Your task to perform on an android device: Look up the best rated wireless earbuds on Ali Express Image 0: 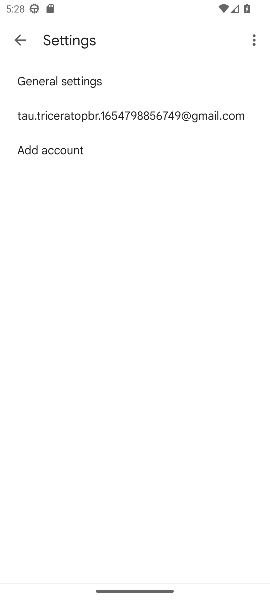
Step 0: press home button
Your task to perform on an android device: Look up the best rated wireless earbuds on Ali Express Image 1: 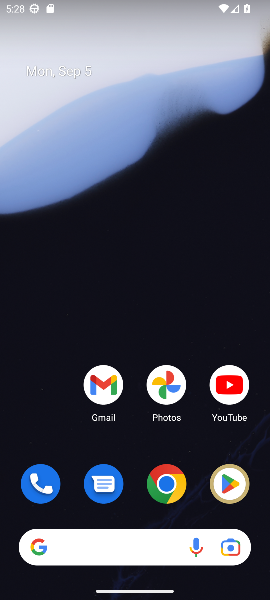
Step 1: click (175, 481)
Your task to perform on an android device: Look up the best rated wireless earbuds on Ali Express Image 2: 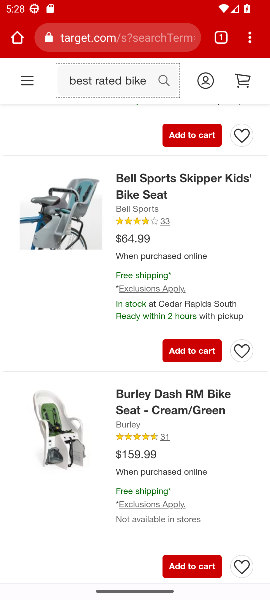
Step 2: click (169, 38)
Your task to perform on an android device: Look up the best rated wireless earbuds on Ali Express Image 3: 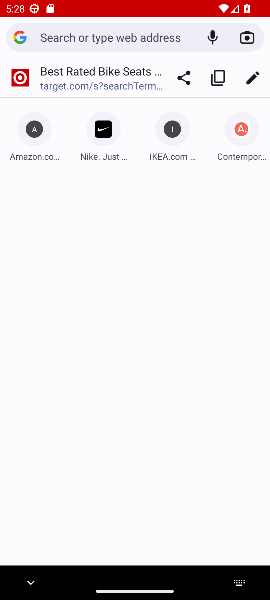
Step 3: type "Ali Express"
Your task to perform on an android device: Look up the best rated wireless earbuds on Ali Express Image 4: 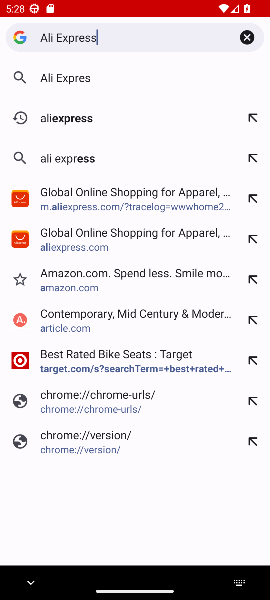
Step 4: press enter
Your task to perform on an android device: Look up the best rated wireless earbuds on Ali Express Image 5: 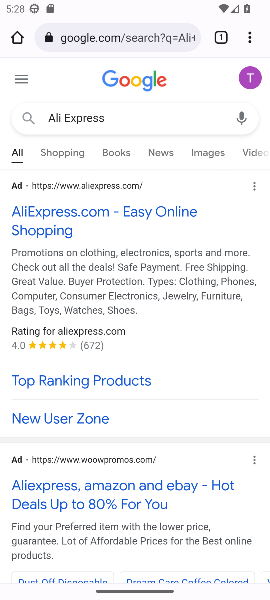
Step 5: drag from (78, 490) to (216, 218)
Your task to perform on an android device: Look up the best rated wireless earbuds on Ali Express Image 6: 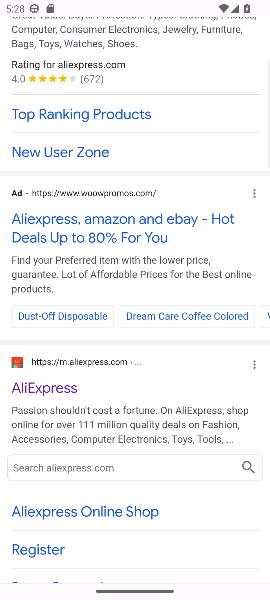
Step 6: click (71, 384)
Your task to perform on an android device: Look up the best rated wireless earbuds on Ali Express Image 7: 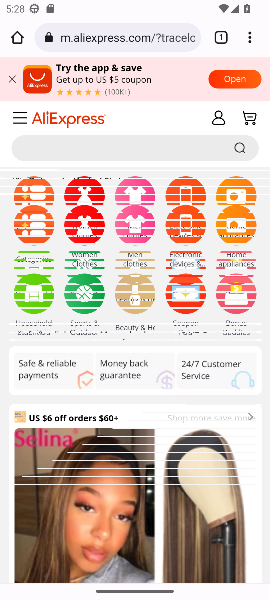
Step 7: click (131, 143)
Your task to perform on an android device: Look up the best rated wireless earbuds on Ali Express Image 8: 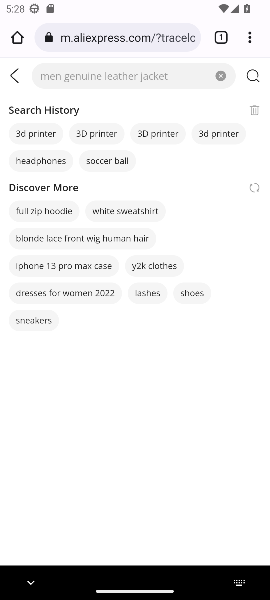
Step 8: type "wireless earbuds"
Your task to perform on an android device: Look up the best rated wireless earbuds on Ali Express Image 9: 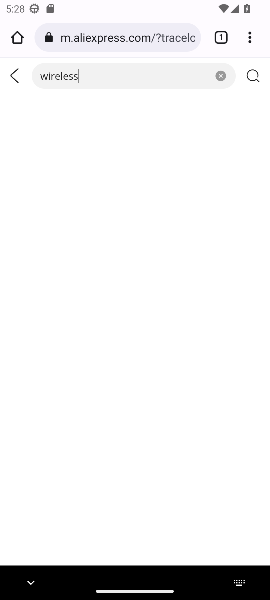
Step 9: press enter
Your task to perform on an android device: Look up the best rated wireless earbuds on Ali Express Image 10: 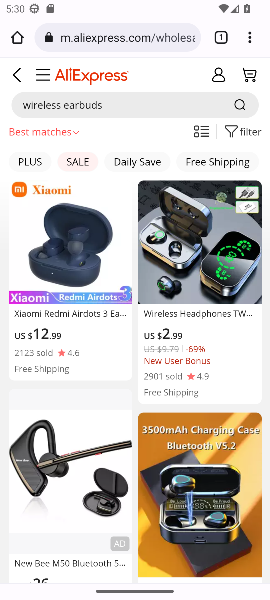
Step 10: task complete